Your task to perform on an android device: toggle data saver in the chrome app Image 0: 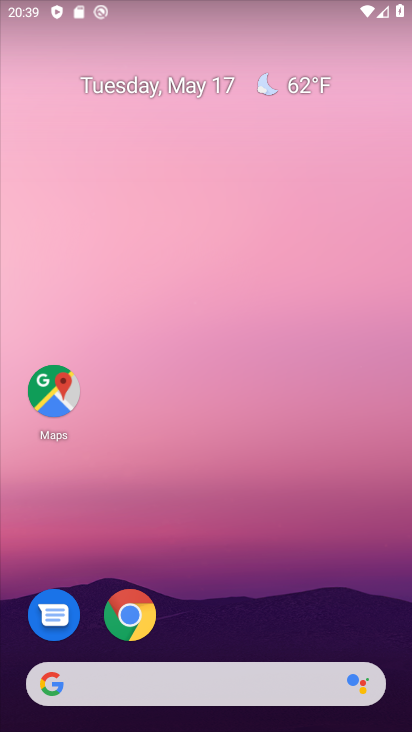
Step 0: click (138, 606)
Your task to perform on an android device: toggle data saver in the chrome app Image 1: 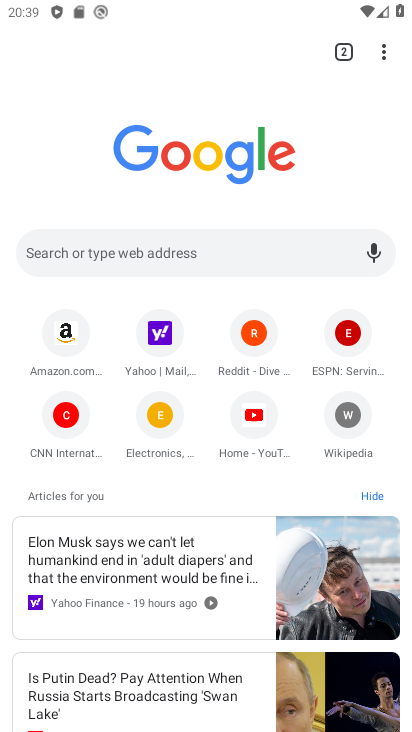
Step 1: drag from (382, 44) to (198, 422)
Your task to perform on an android device: toggle data saver in the chrome app Image 2: 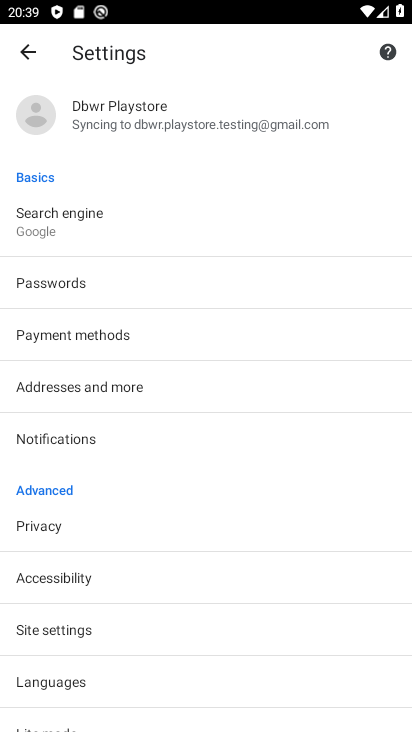
Step 2: drag from (122, 689) to (136, 337)
Your task to perform on an android device: toggle data saver in the chrome app Image 3: 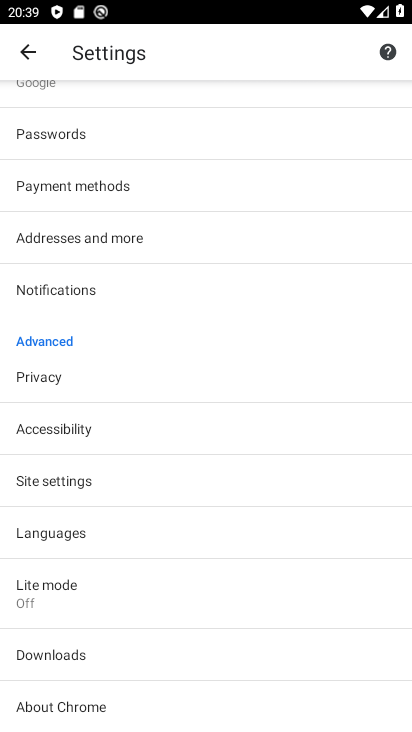
Step 3: click (59, 587)
Your task to perform on an android device: toggle data saver in the chrome app Image 4: 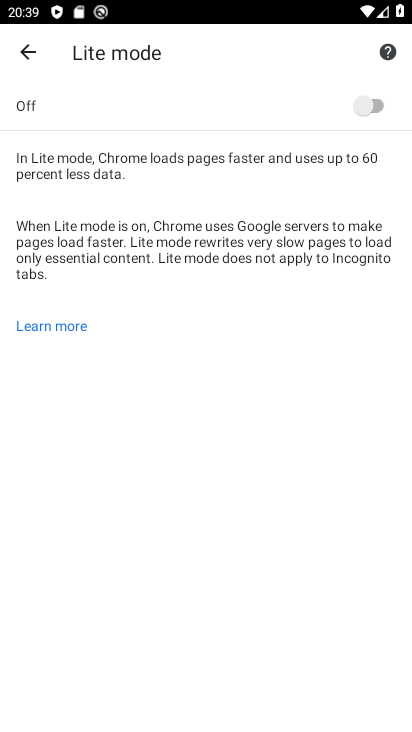
Step 4: click (374, 107)
Your task to perform on an android device: toggle data saver in the chrome app Image 5: 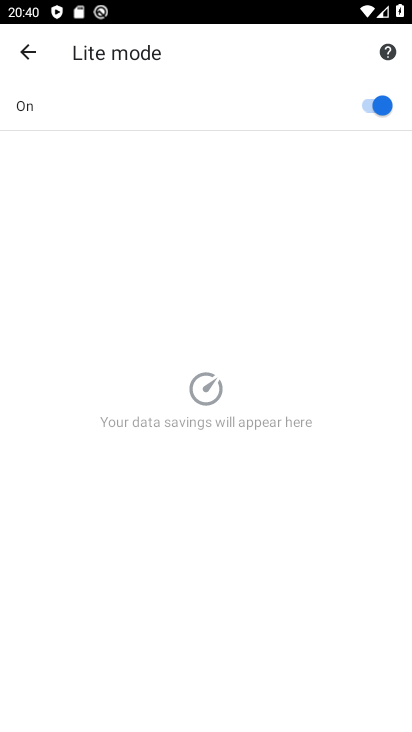
Step 5: task complete